Your task to perform on an android device: What is the news today? Image 0: 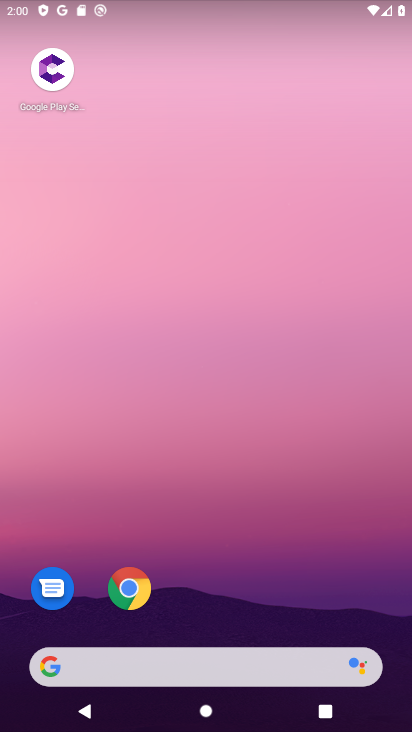
Step 0: drag from (207, 624) to (280, 91)
Your task to perform on an android device: What is the news today? Image 1: 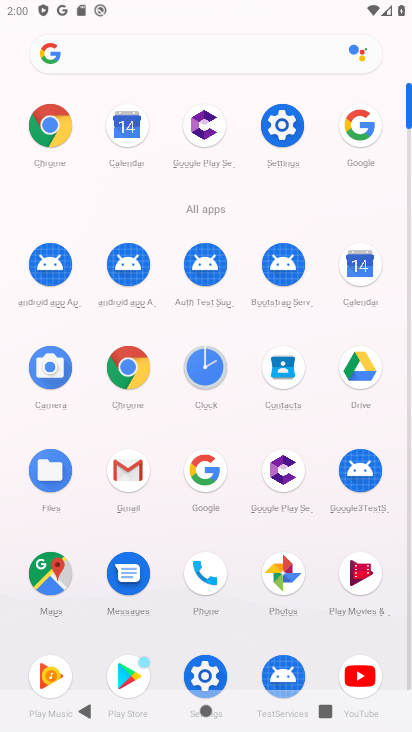
Step 1: click (217, 467)
Your task to perform on an android device: What is the news today? Image 2: 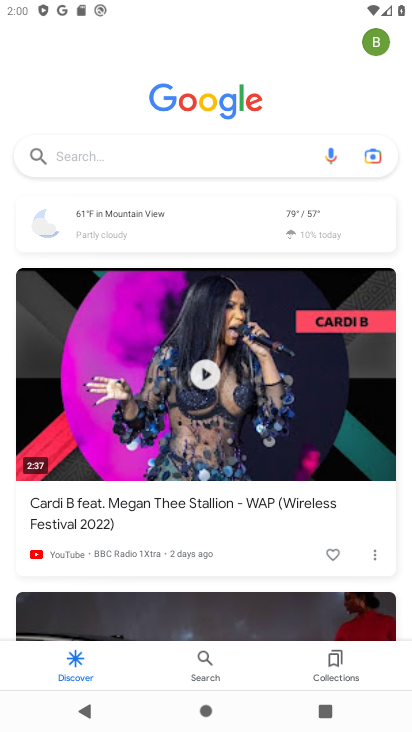
Step 2: click (242, 150)
Your task to perform on an android device: What is the news today? Image 3: 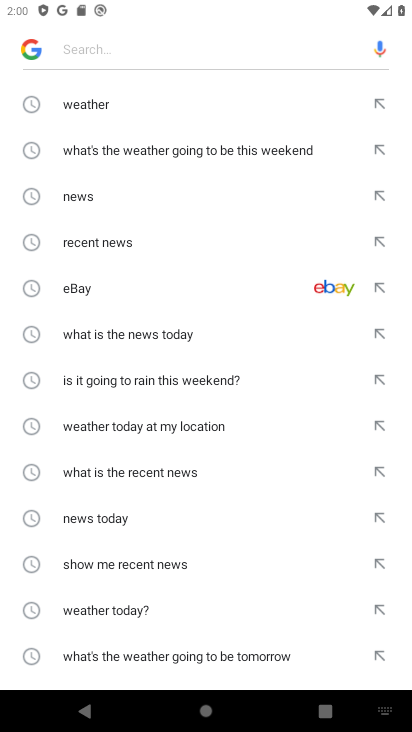
Step 3: click (111, 202)
Your task to perform on an android device: What is the news today? Image 4: 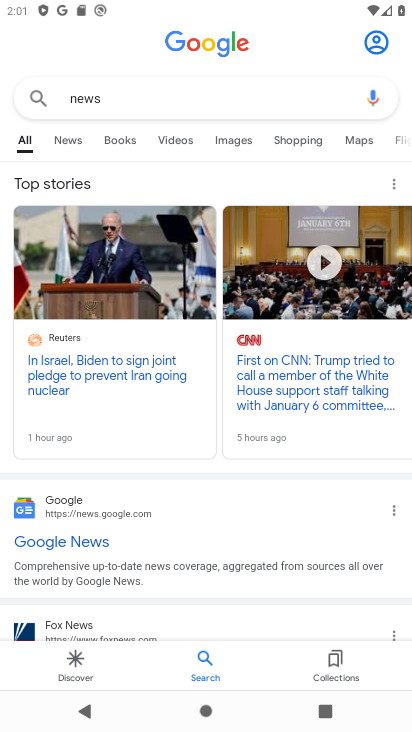
Step 4: task complete